Your task to perform on an android device: Open battery settings Image 0: 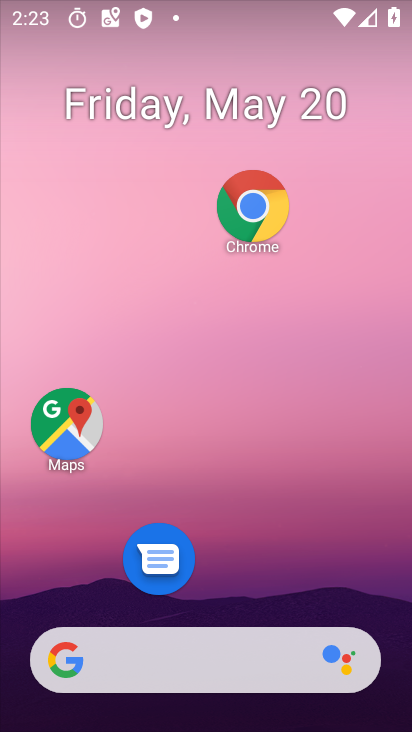
Step 0: drag from (239, 614) to (223, 98)
Your task to perform on an android device: Open battery settings Image 1: 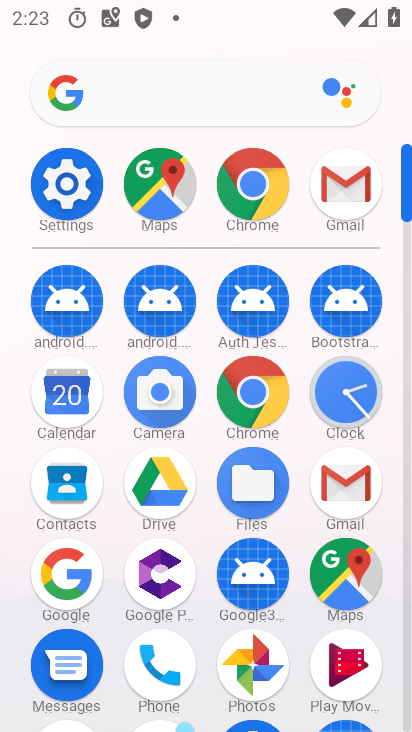
Step 1: click (77, 187)
Your task to perform on an android device: Open battery settings Image 2: 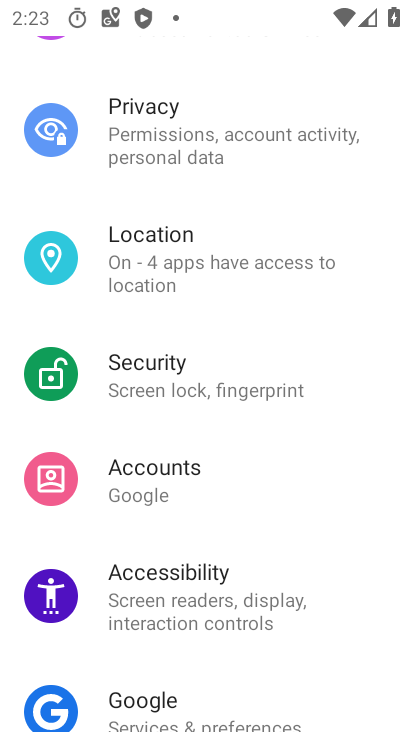
Step 2: drag from (134, 261) to (102, 629)
Your task to perform on an android device: Open battery settings Image 3: 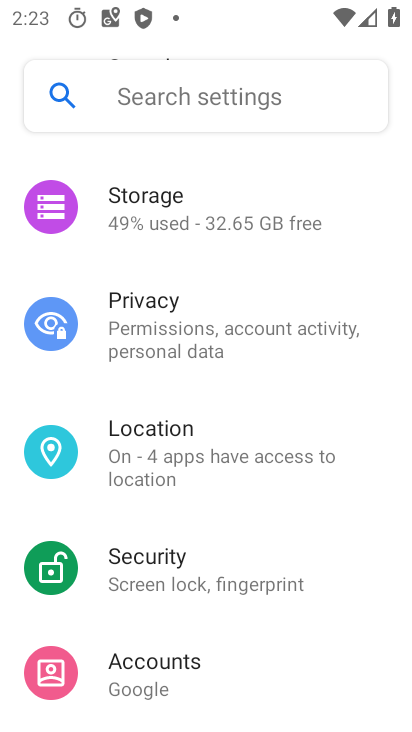
Step 3: drag from (163, 213) to (139, 545)
Your task to perform on an android device: Open battery settings Image 4: 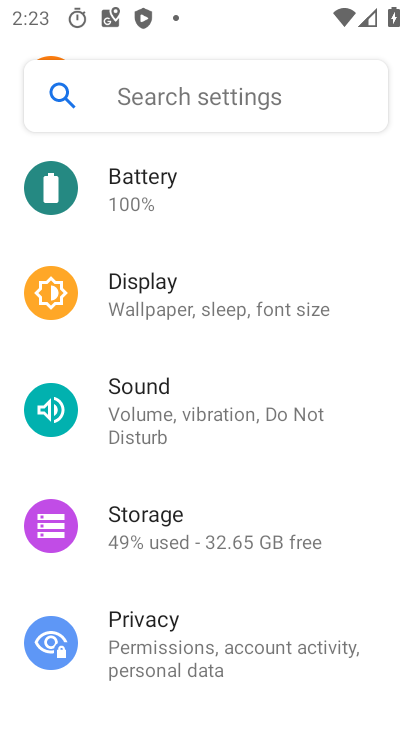
Step 4: click (140, 185)
Your task to perform on an android device: Open battery settings Image 5: 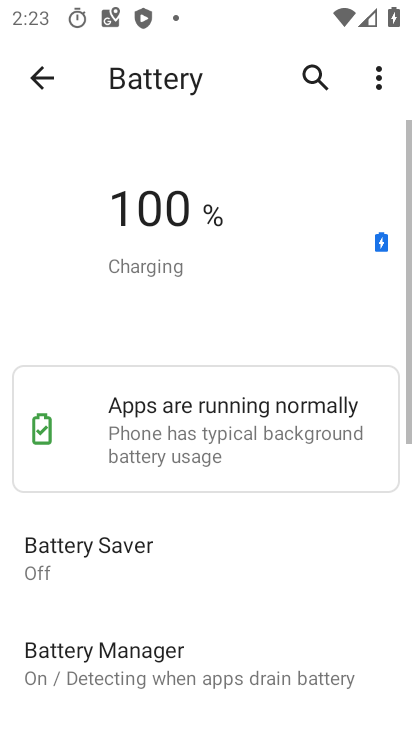
Step 5: task complete